Your task to perform on an android device: search for starred emails in the gmail app Image 0: 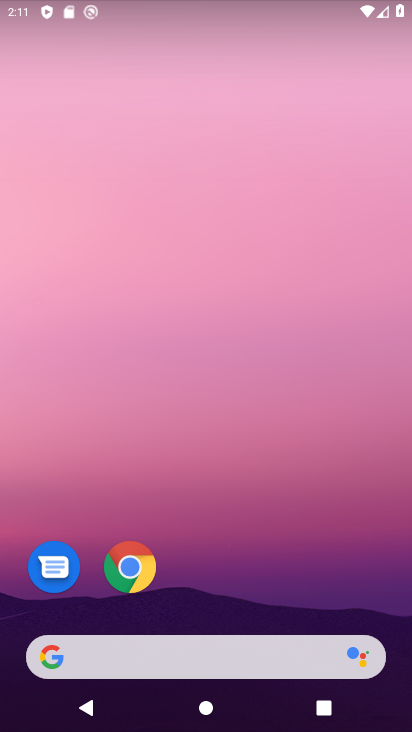
Step 0: drag from (236, 615) to (204, 180)
Your task to perform on an android device: search for starred emails in the gmail app Image 1: 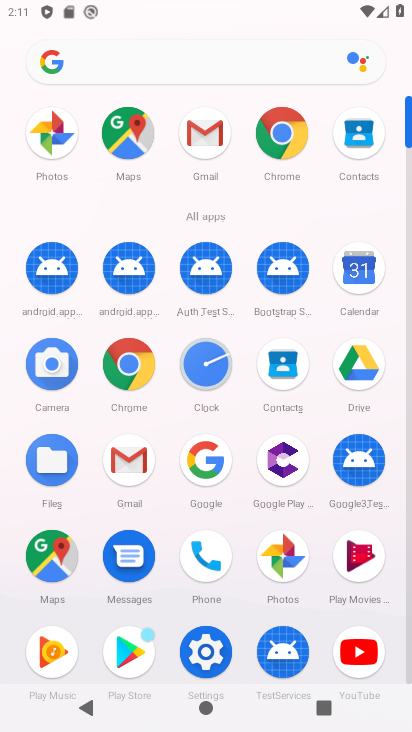
Step 1: click (198, 147)
Your task to perform on an android device: search for starred emails in the gmail app Image 2: 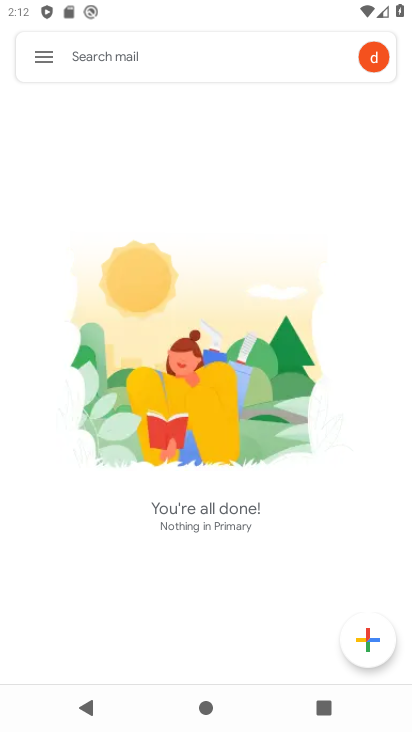
Step 2: click (37, 56)
Your task to perform on an android device: search for starred emails in the gmail app Image 3: 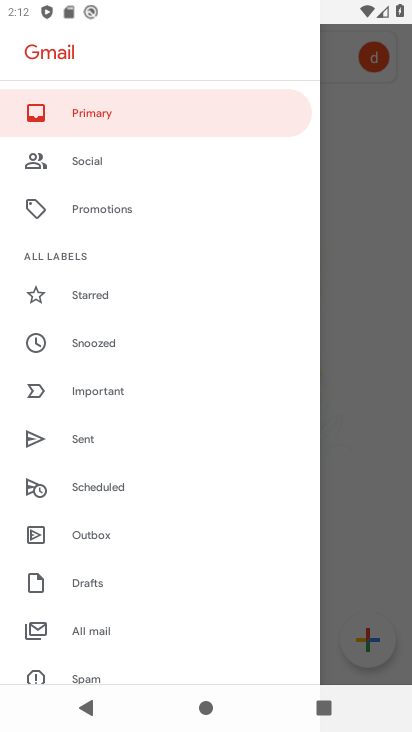
Step 3: click (112, 301)
Your task to perform on an android device: search for starred emails in the gmail app Image 4: 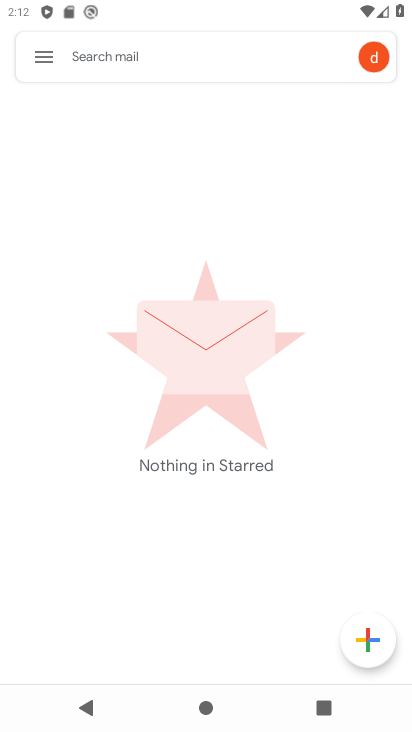
Step 4: task complete